Your task to perform on an android device: move an email to a new category in the gmail app Image 0: 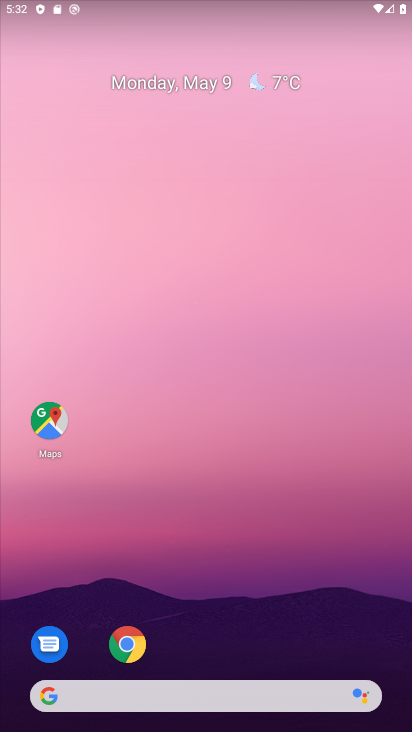
Step 0: drag from (270, 589) to (277, 7)
Your task to perform on an android device: move an email to a new category in the gmail app Image 1: 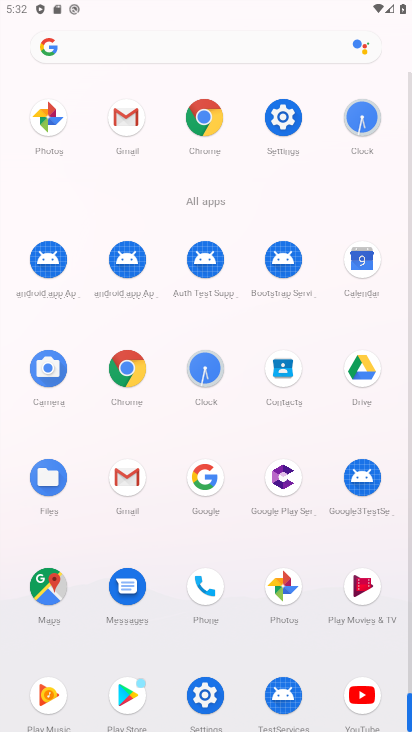
Step 1: click (127, 477)
Your task to perform on an android device: move an email to a new category in the gmail app Image 2: 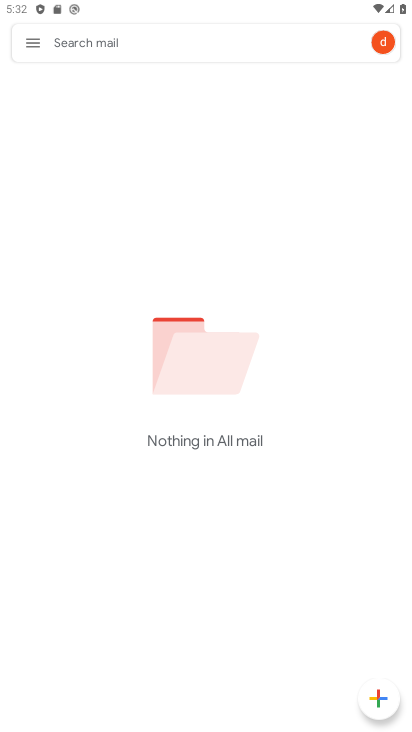
Step 2: task complete